Your task to perform on an android device: What's the latest tech news? Image 0: 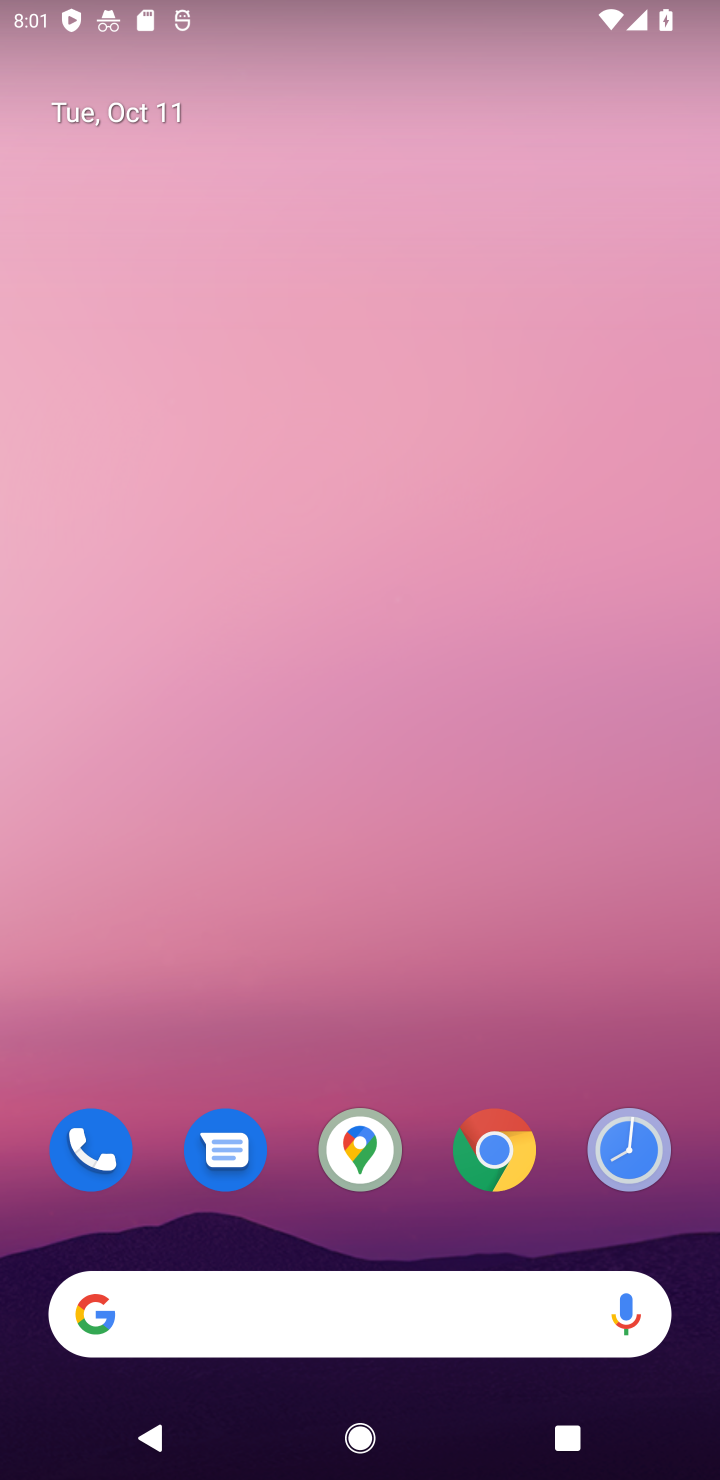
Step 0: click (502, 1159)
Your task to perform on an android device: What's the latest tech news? Image 1: 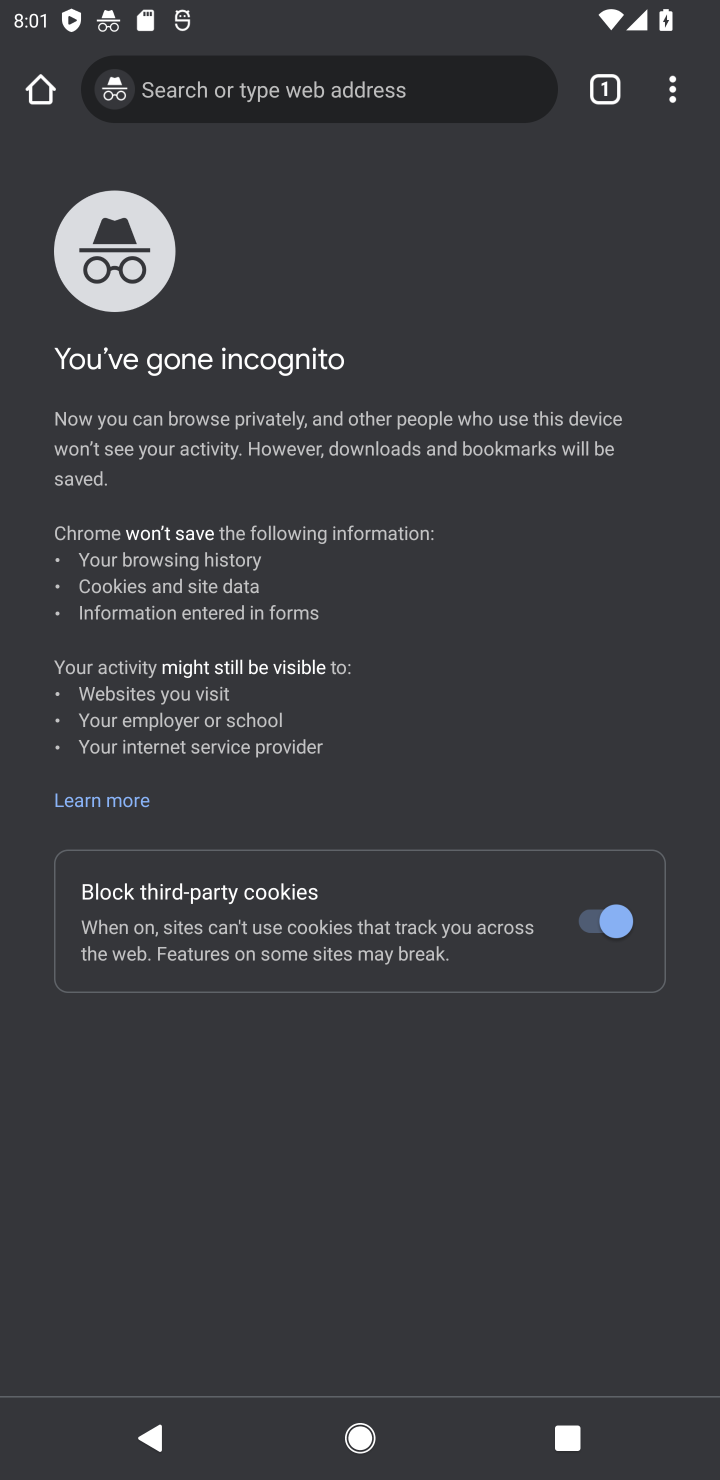
Step 1: click (298, 97)
Your task to perform on an android device: What's the latest tech news? Image 2: 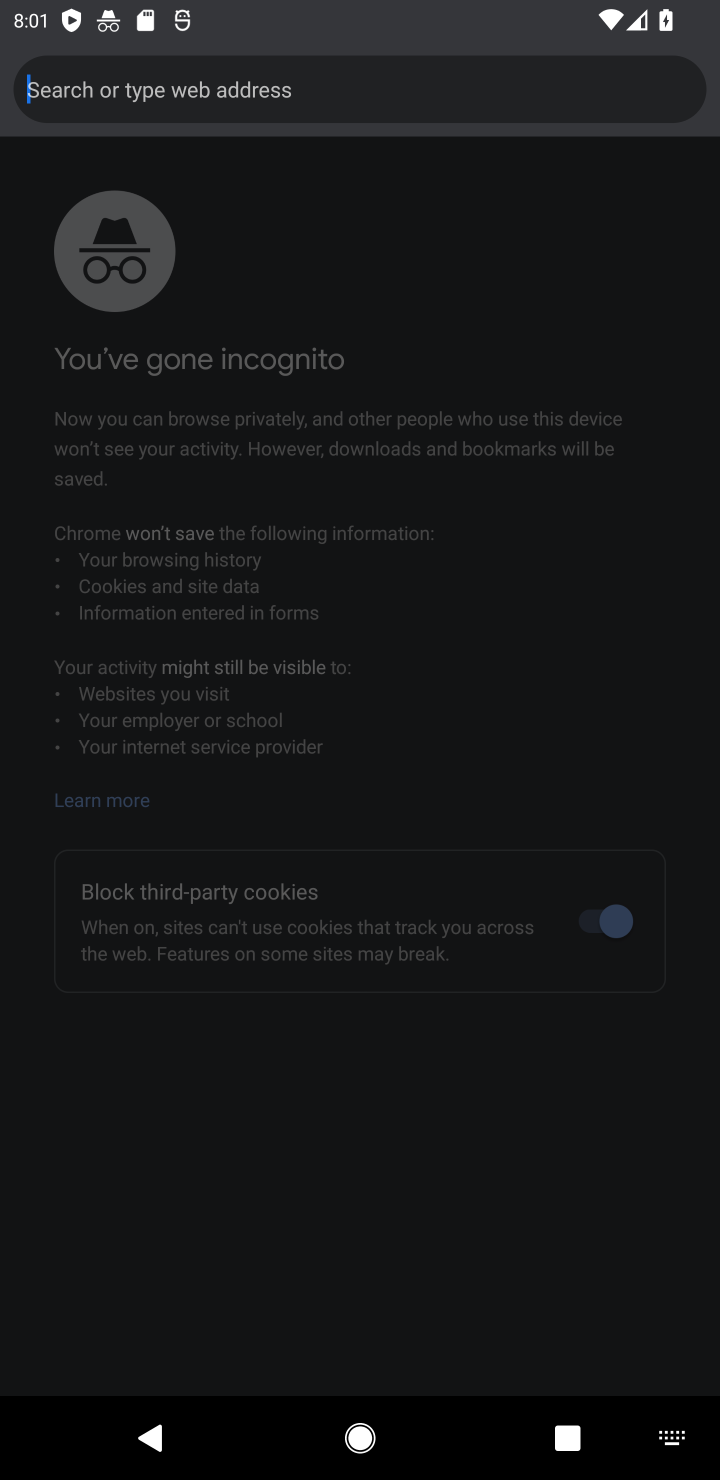
Step 2: type "latest tech news "
Your task to perform on an android device: What's the latest tech news? Image 3: 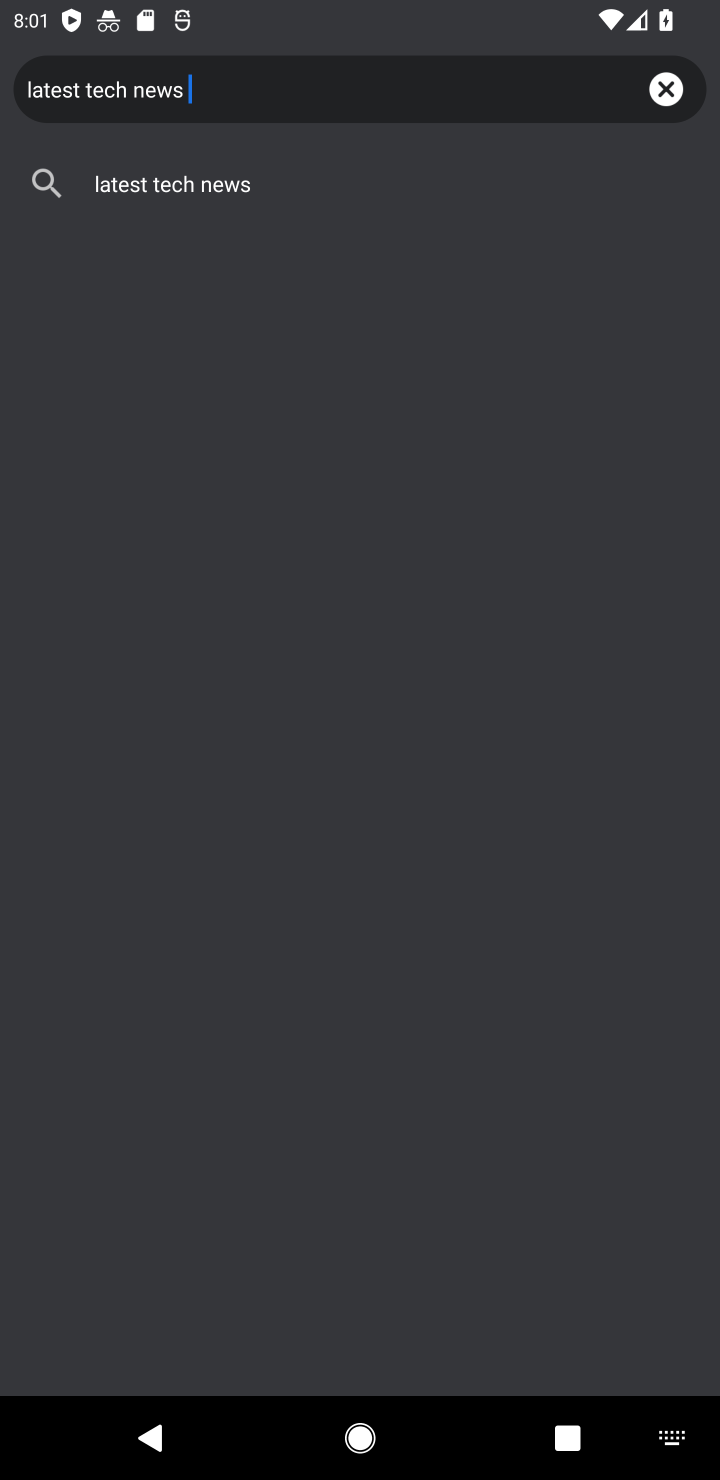
Step 3: click (155, 191)
Your task to perform on an android device: What's the latest tech news? Image 4: 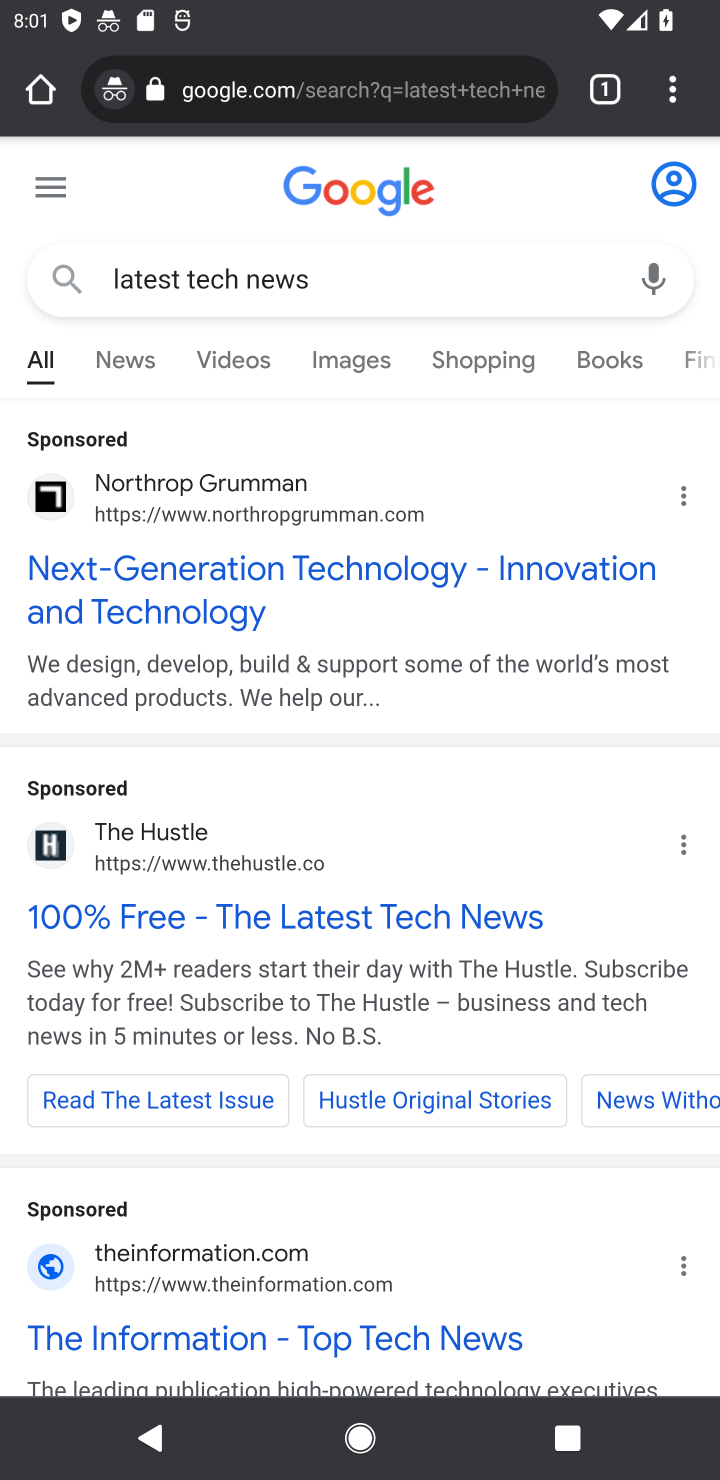
Step 4: click (119, 361)
Your task to perform on an android device: What's the latest tech news? Image 5: 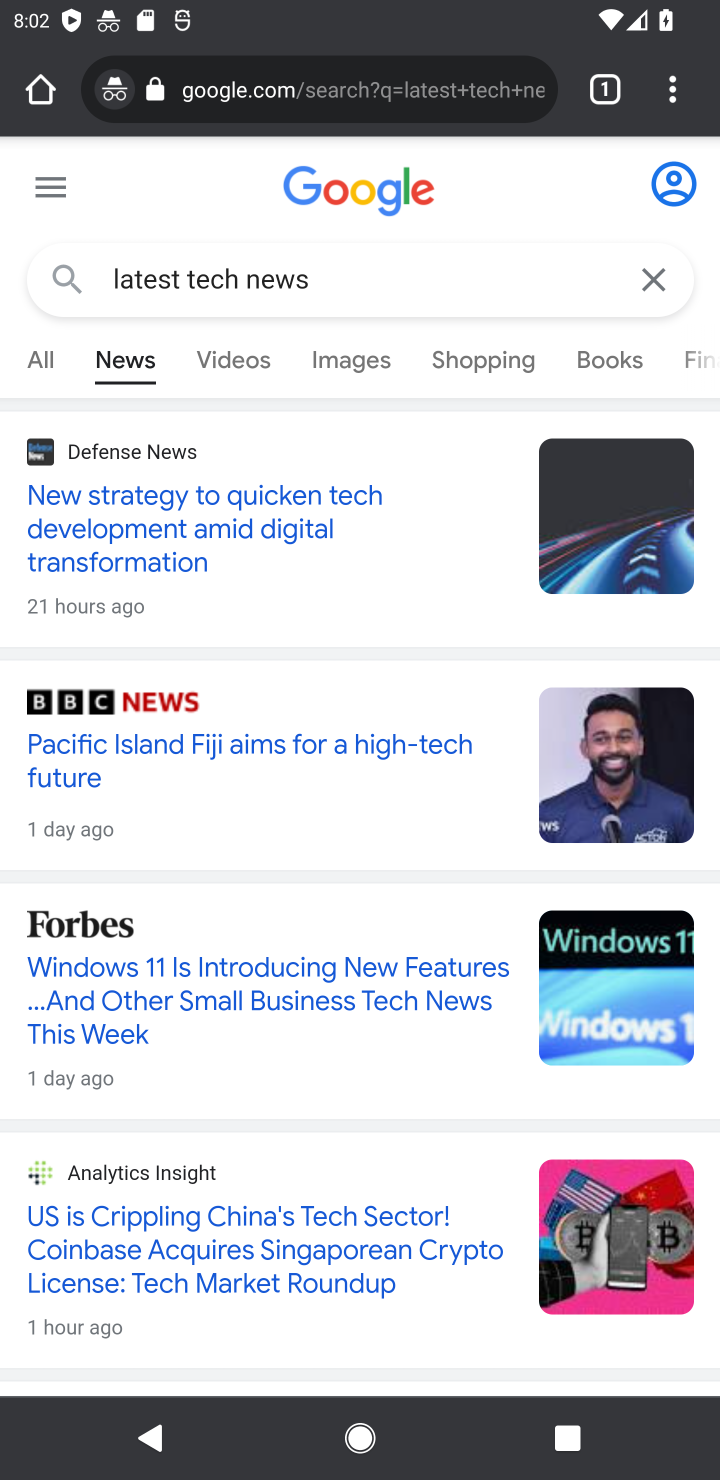
Step 5: click (166, 744)
Your task to perform on an android device: What's the latest tech news? Image 6: 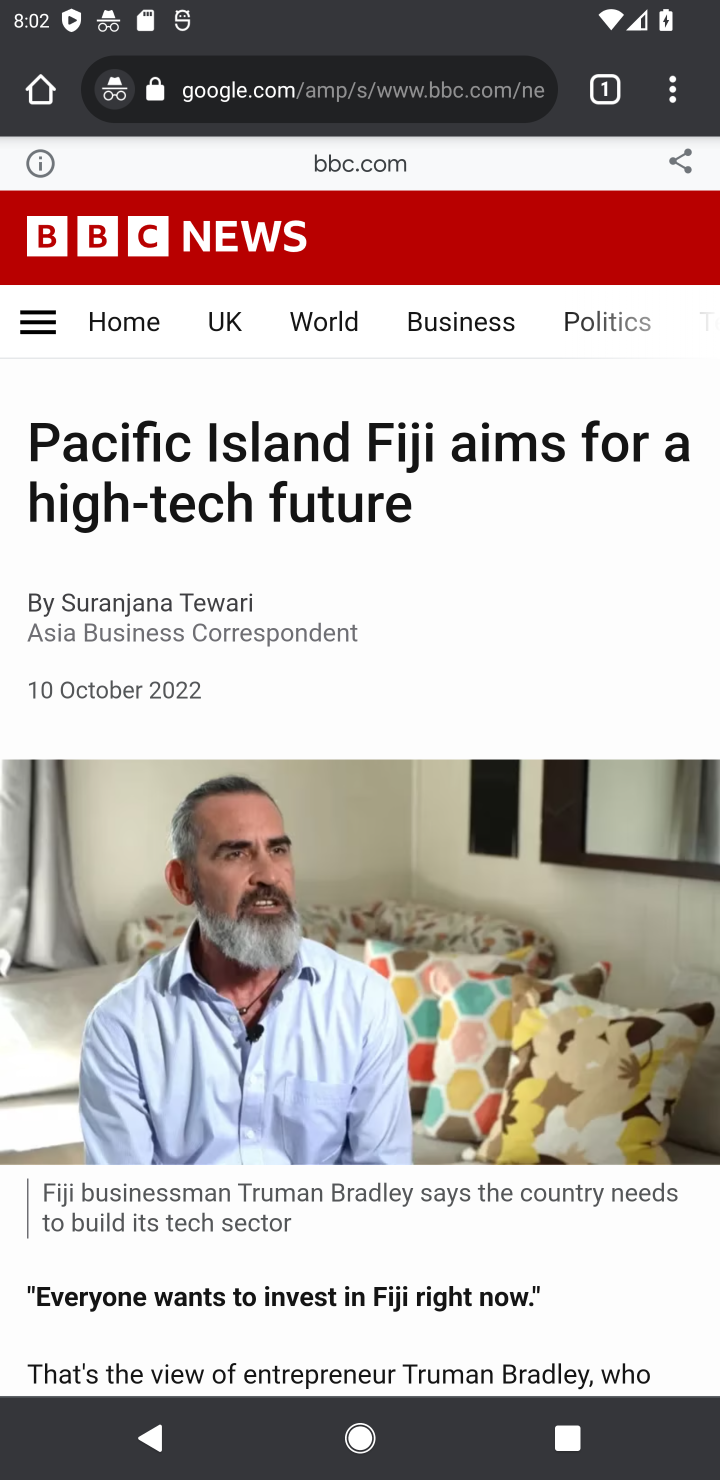
Step 6: task complete